Your task to perform on an android device: What's the weather today? Image 0: 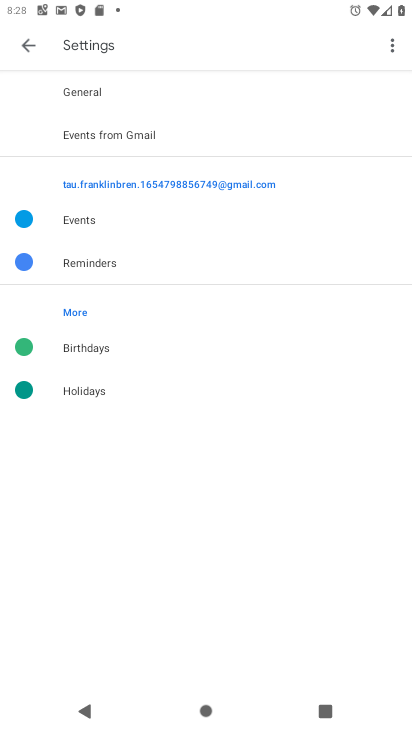
Step 0: press back button
Your task to perform on an android device: What's the weather today? Image 1: 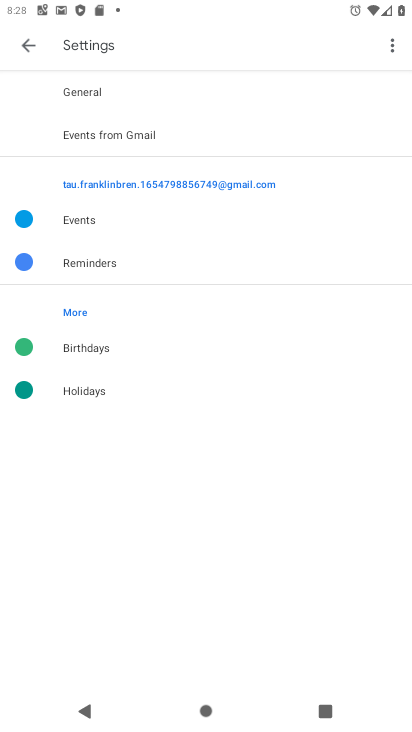
Step 1: press back button
Your task to perform on an android device: What's the weather today? Image 2: 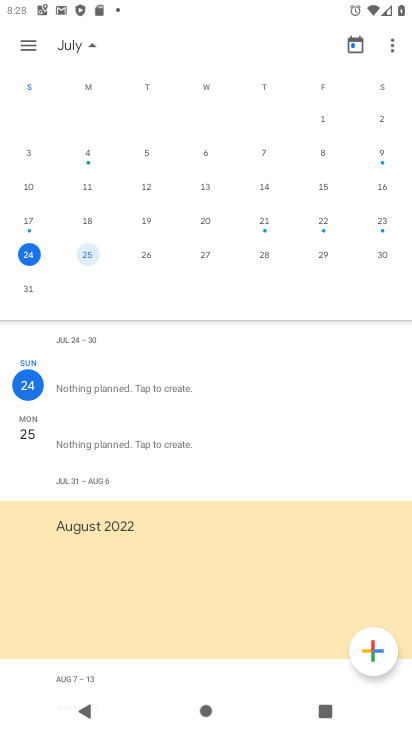
Step 2: press back button
Your task to perform on an android device: What's the weather today? Image 3: 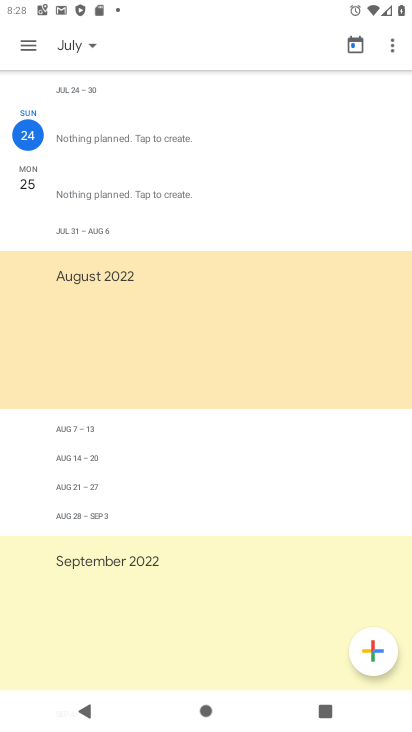
Step 3: press home button
Your task to perform on an android device: What's the weather today? Image 4: 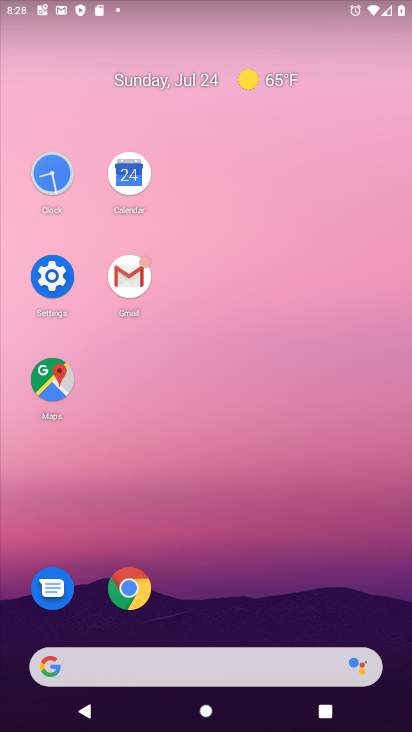
Step 4: drag from (276, 577) to (300, 134)
Your task to perform on an android device: What's the weather today? Image 5: 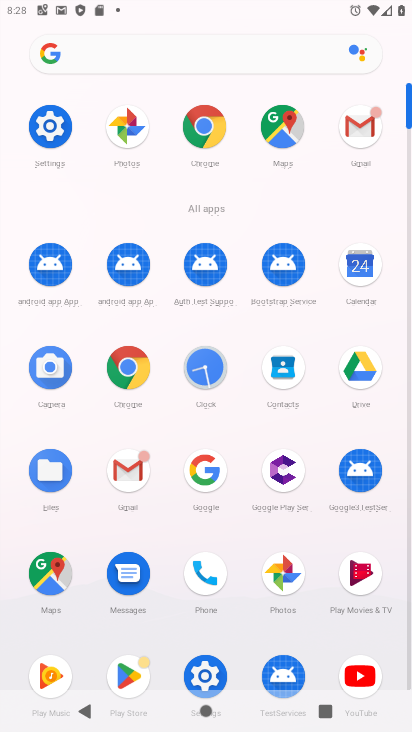
Step 5: drag from (193, 467) to (209, 275)
Your task to perform on an android device: What's the weather today? Image 6: 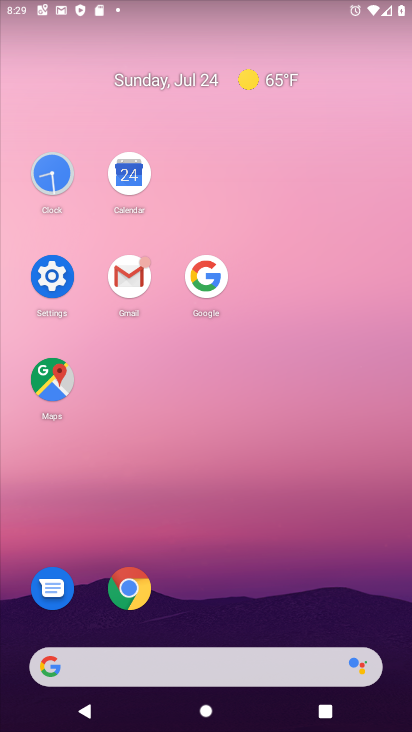
Step 6: click (210, 289)
Your task to perform on an android device: What's the weather today? Image 7: 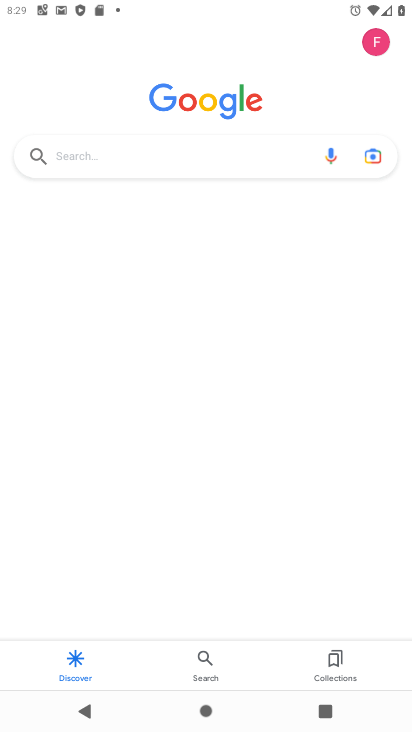
Step 7: click (159, 151)
Your task to perform on an android device: What's the weather today? Image 8: 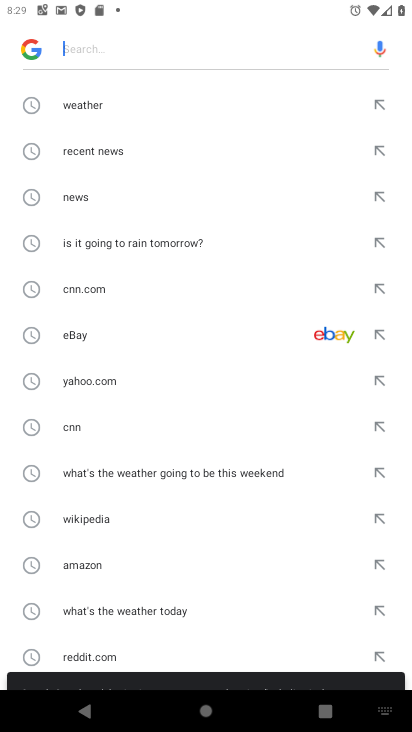
Step 8: click (109, 103)
Your task to perform on an android device: What's the weather today? Image 9: 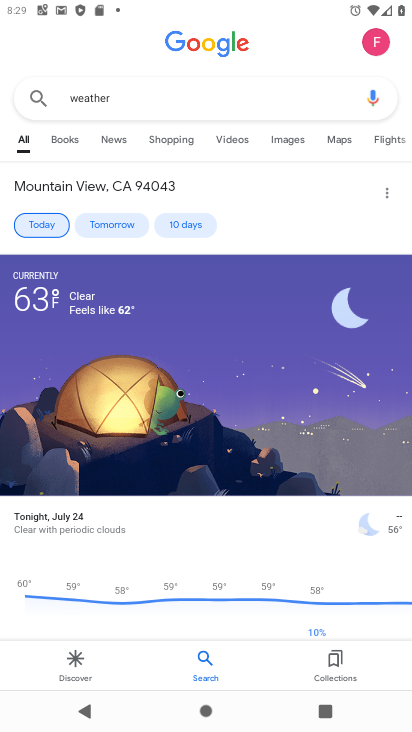
Step 9: task complete